Your task to perform on an android device: Go to Yahoo.com Image 0: 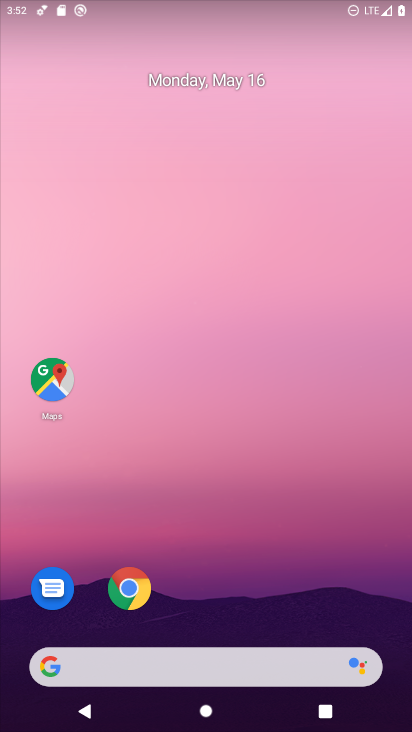
Step 0: click (135, 594)
Your task to perform on an android device: Go to Yahoo.com Image 1: 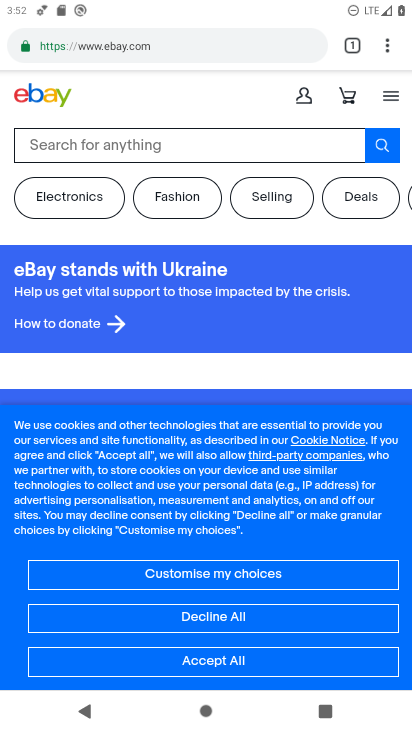
Step 1: click (91, 41)
Your task to perform on an android device: Go to Yahoo.com Image 2: 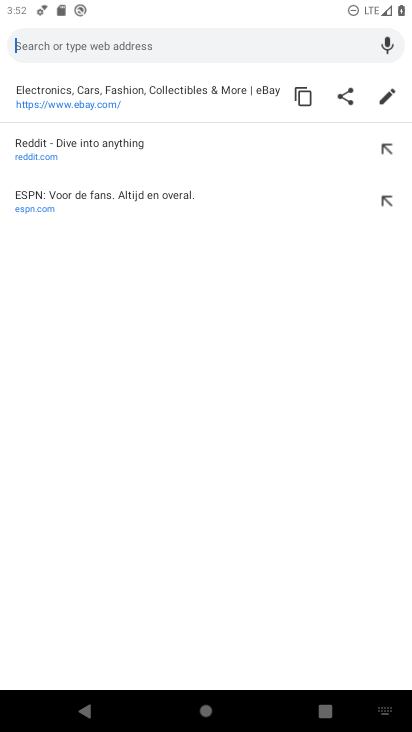
Step 2: type "yahoo.com"
Your task to perform on an android device: Go to Yahoo.com Image 3: 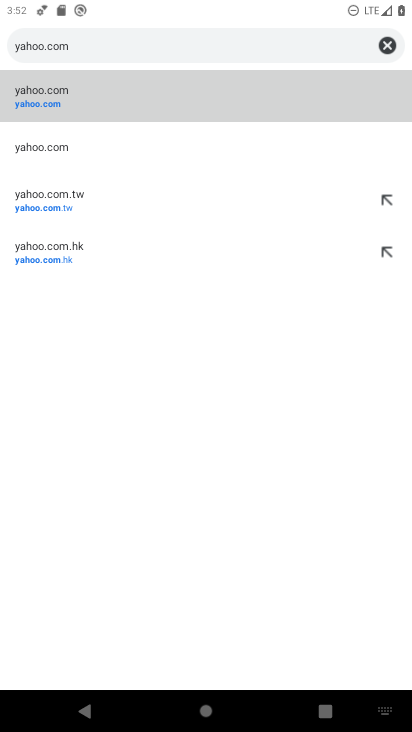
Step 3: click (49, 98)
Your task to perform on an android device: Go to Yahoo.com Image 4: 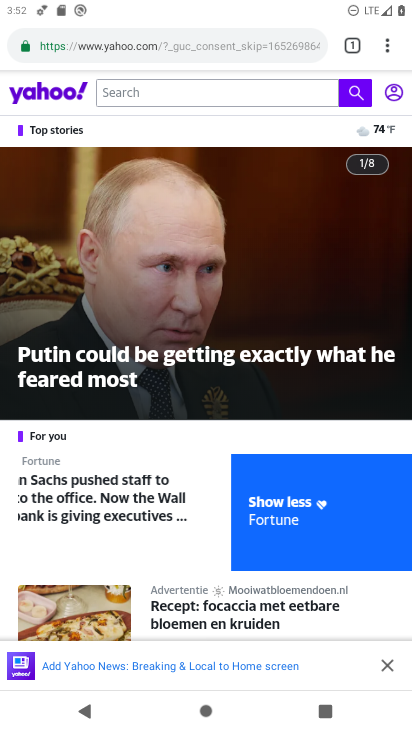
Step 4: task complete